Your task to perform on an android device: Open the phone app and click the voicemail tab. Image 0: 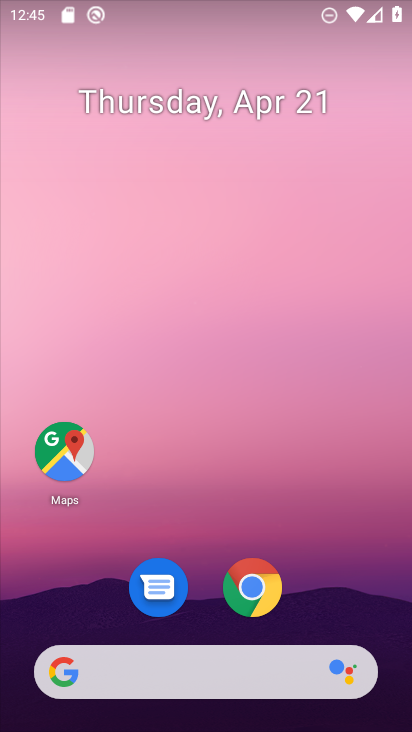
Step 0: drag from (295, 428) to (278, 63)
Your task to perform on an android device: Open the phone app and click the voicemail tab. Image 1: 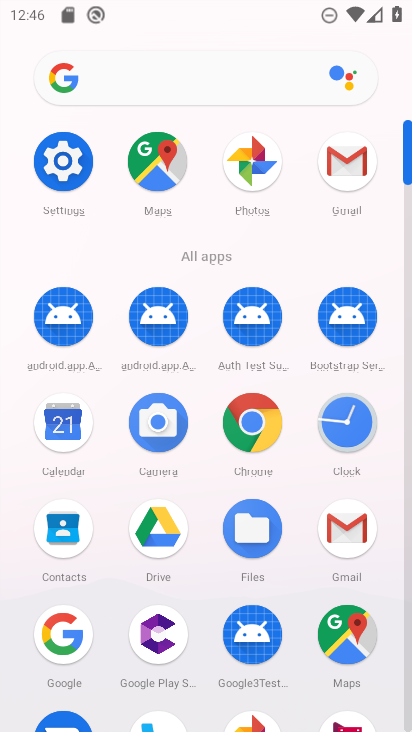
Step 1: drag from (177, 502) to (146, 222)
Your task to perform on an android device: Open the phone app and click the voicemail tab. Image 2: 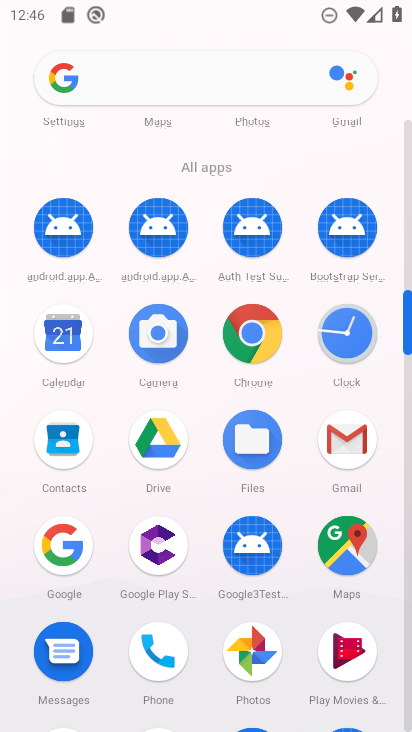
Step 2: click (161, 651)
Your task to perform on an android device: Open the phone app and click the voicemail tab. Image 3: 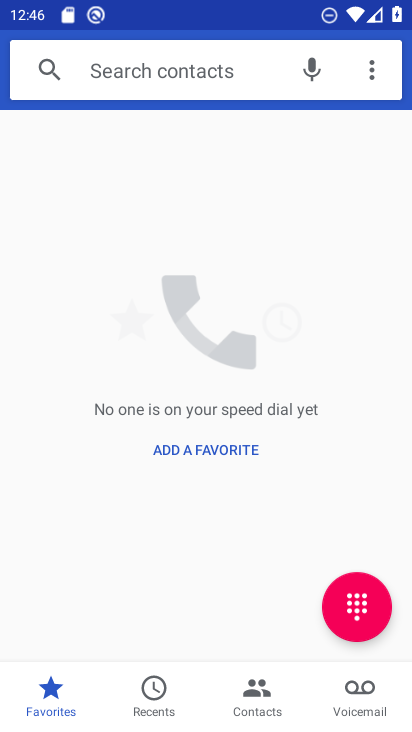
Step 3: click (346, 694)
Your task to perform on an android device: Open the phone app and click the voicemail tab. Image 4: 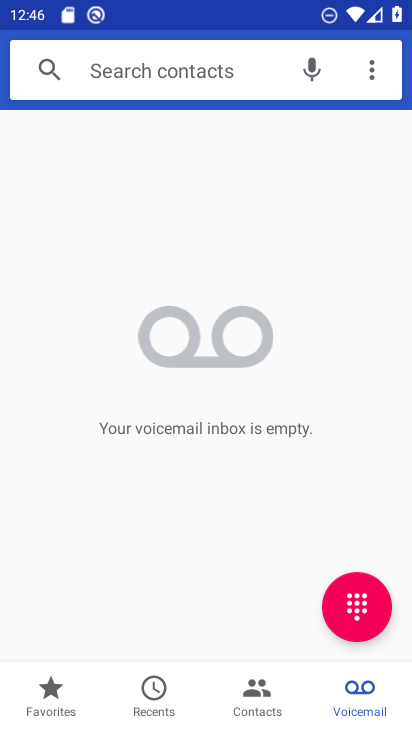
Step 4: task complete